Your task to perform on an android device: Open maps Image 0: 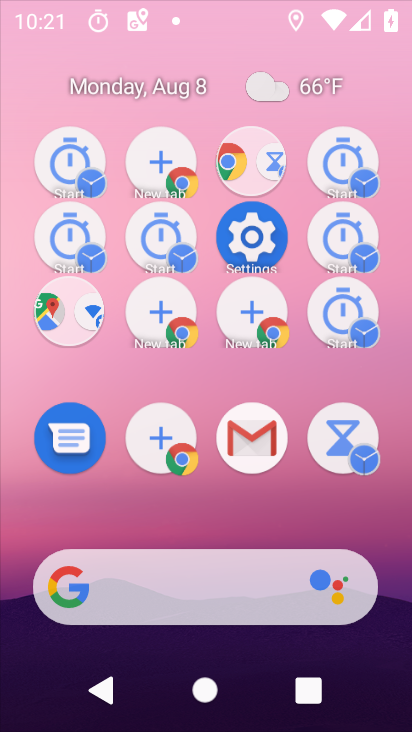
Step 0: press back button
Your task to perform on an android device: Open maps Image 1: 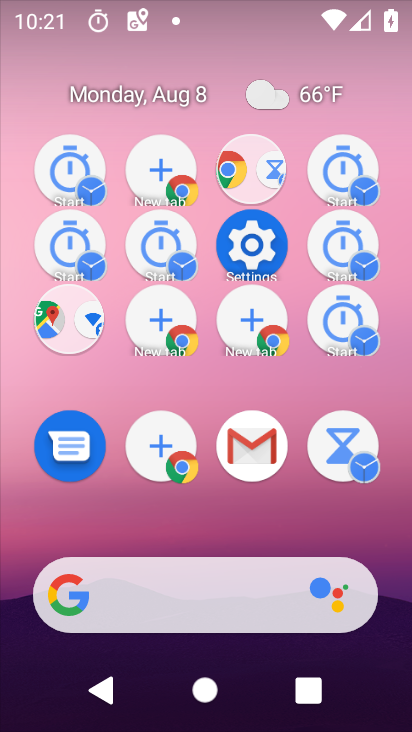
Step 1: press back button
Your task to perform on an android device: Open maps Image 2: 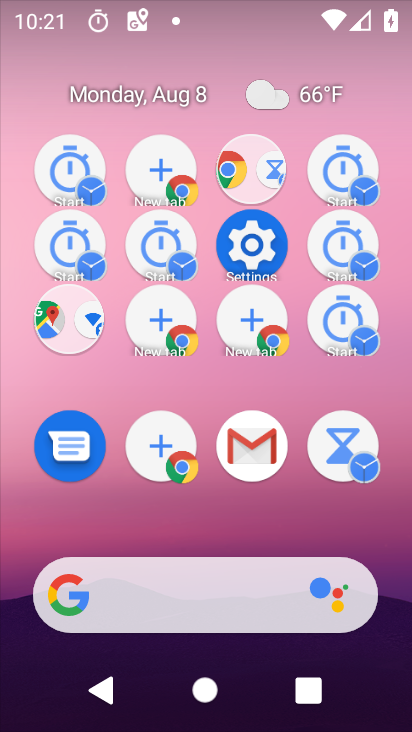
Step 2: click (219, 247)
Your task to perform on an android device: Open maps Image 3: 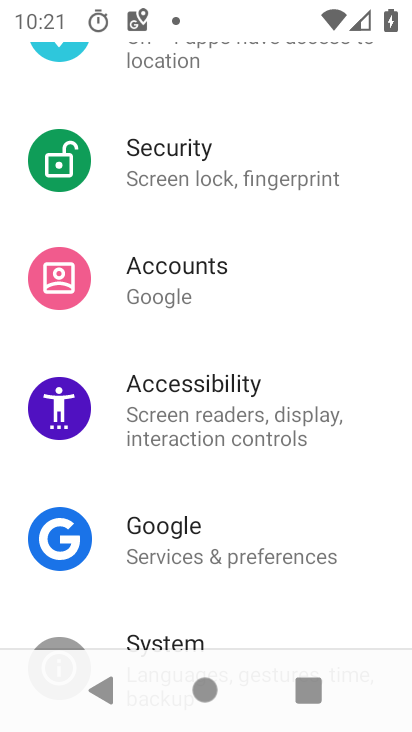
Step 3: press back button
Your task to perform on an android device: Open maps Image 4: 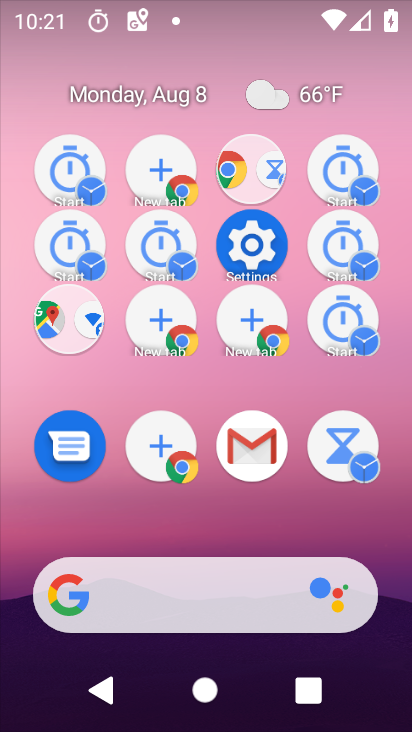
Step 4: drag from (239, 648) to (222, 210)
Your task to perform on an android device: Open maps Image 5: 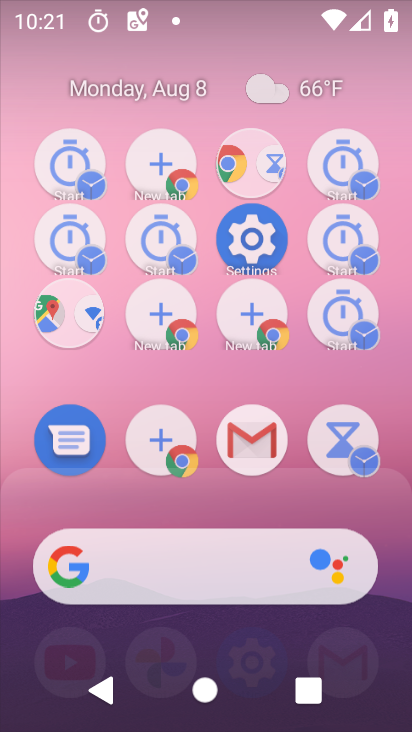
Step 5: click (254, 238)
Your task to perform on an android device: Open maps Image 6: 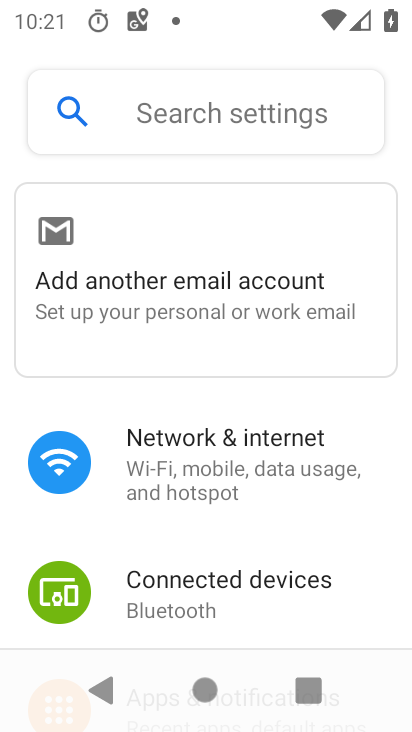
Step 6: press back button
Your task to perform on an android device: Open maps Image 7: 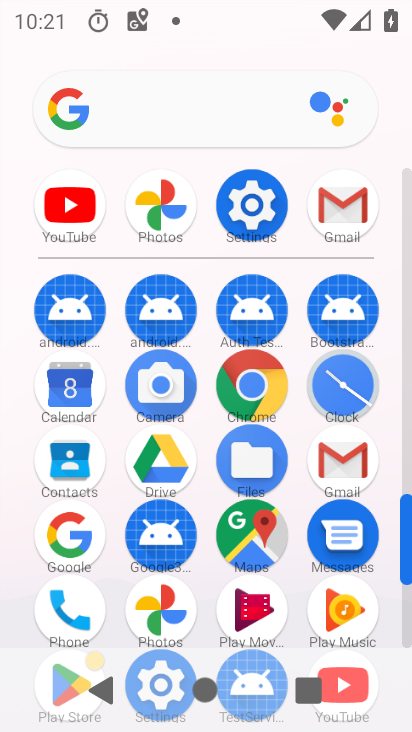
Step 7: click (255, 546)
Your task to perform on an android device: Open maps Image 8: 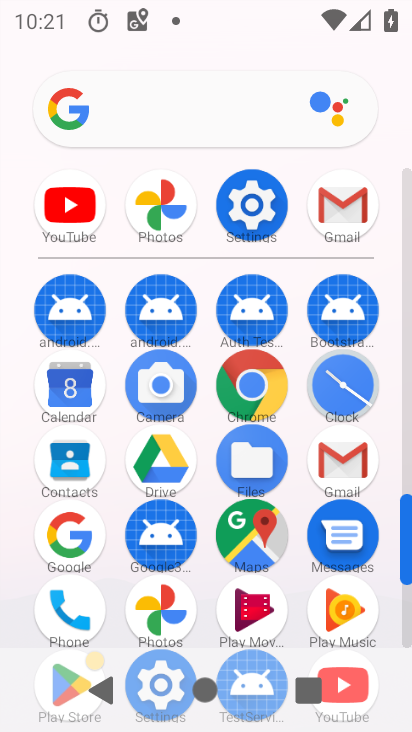
Step 8: click (261, 552)
Your task to perform on an android device: Open maps Image 9: 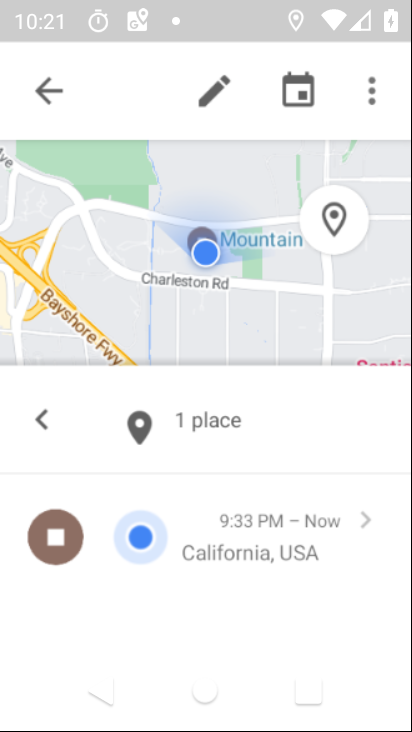
Step 9: click (264, 549)
Your task to perform on an android device: Open maps Image 10: 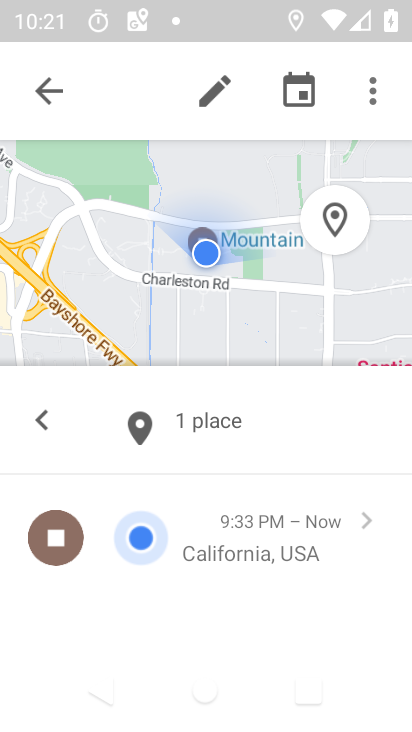
Step 10: task complete